Your task to perform on an android device: add a contact Image 0: 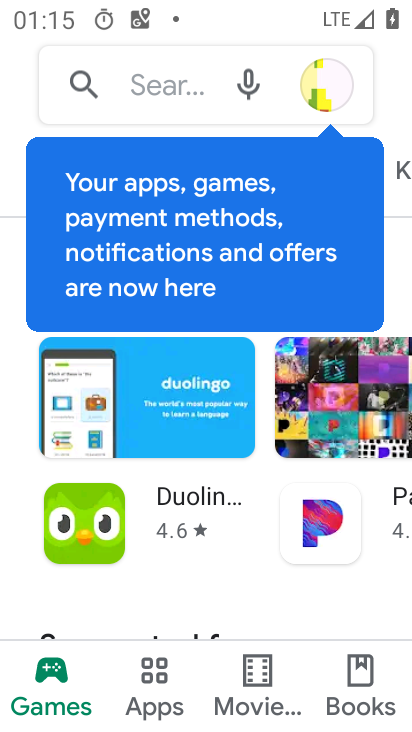
Step 0: press home button
Your task to perform on an android device: add a contact Image 1: 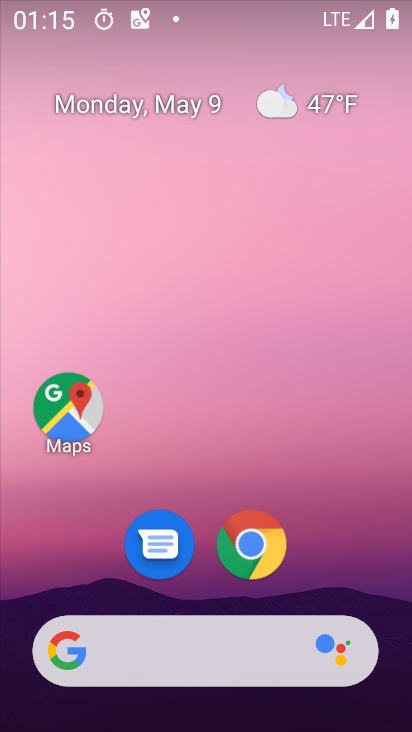
Step 1: drag from (319, 597) to (271, 10)
Your task to perform on an android device: add a contact Image 2: 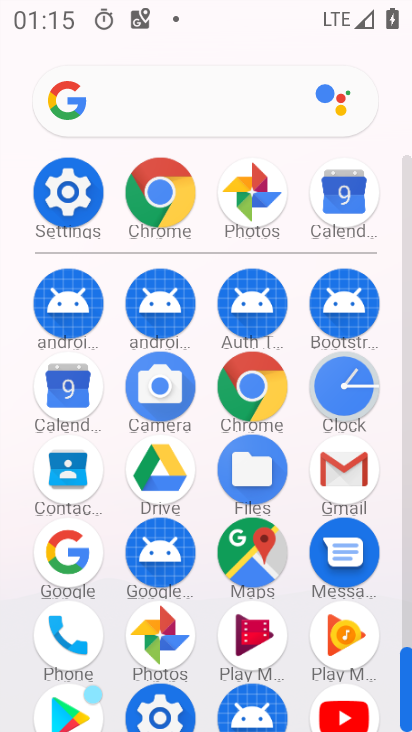
Step 2: click (83, 489)
Your task to perform on an android device: add a contact Image 3: 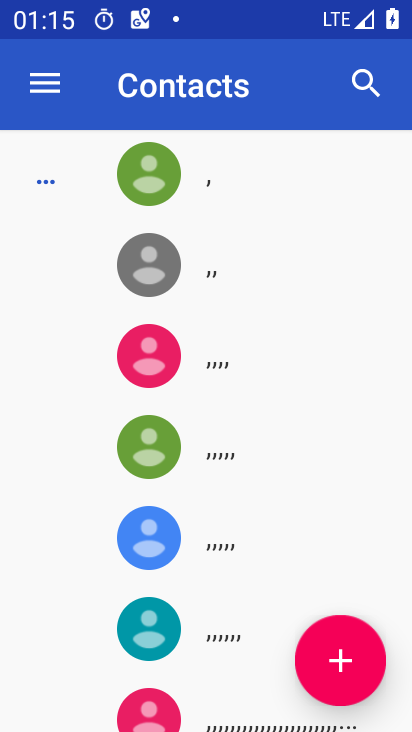
Step 3: click (352, 662)
Your task to perform on an android device: add a contact Image 4: 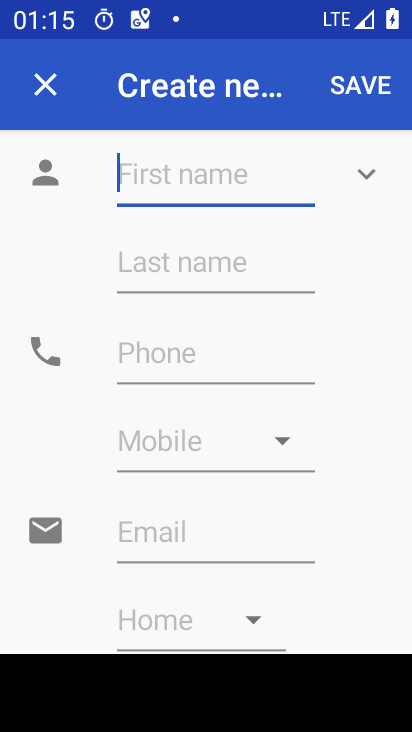
Step 4: type "ddffffhfgs"
Your task to perform on an android device: add a contact Image 5: 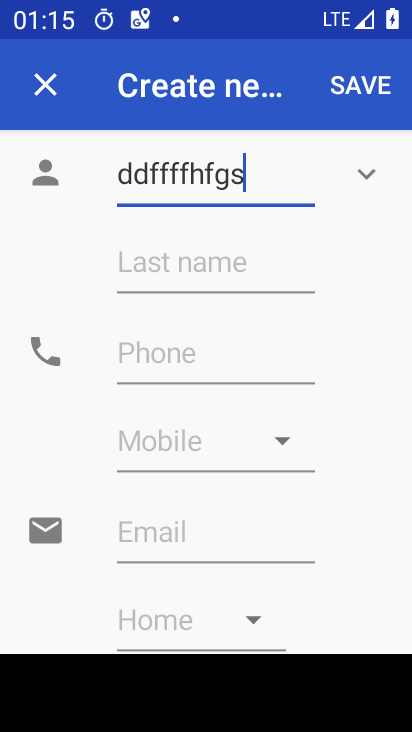
Step 5: click (262, 368)
Your task to perform on an android device: add a contact Image 6: 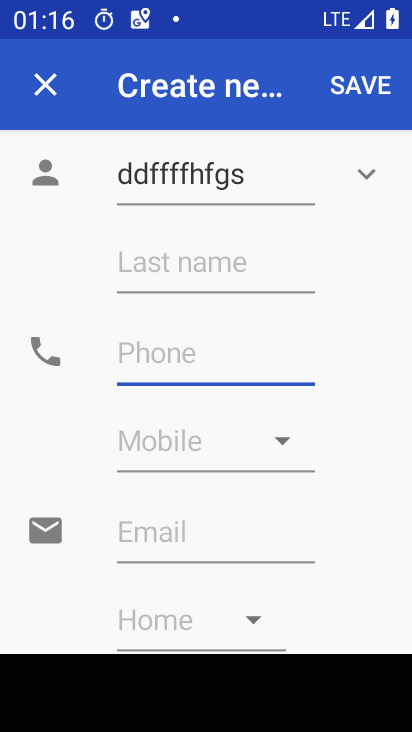
Step 6: type "45556475"
Your task to perform on an android device: add a contact Image 7: 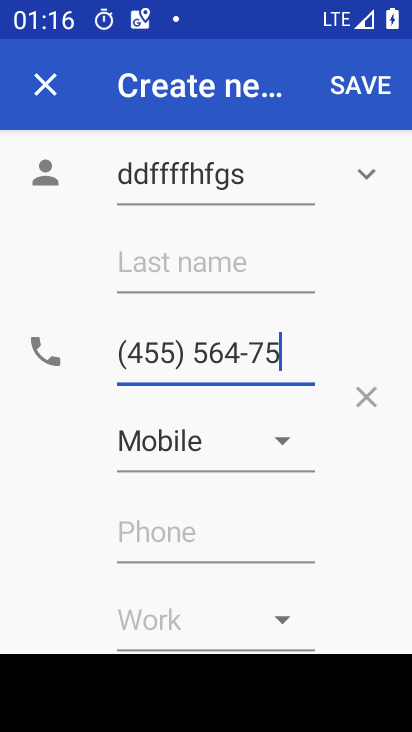
Step 7: click (346, 83)
Your task to perform on an android device: add a contact Image 8: 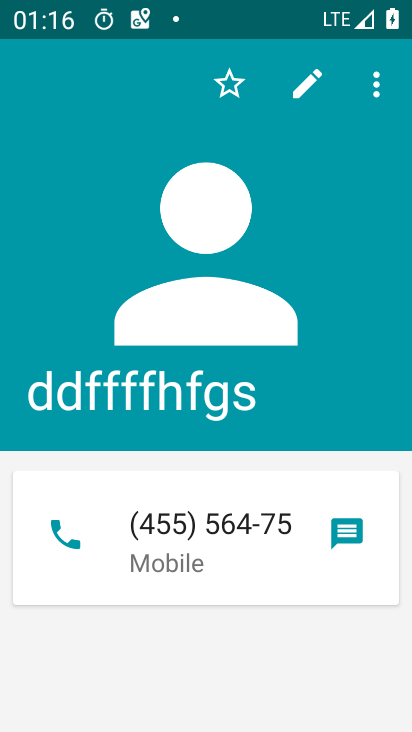
Step 8: task complete